Your task to perform on an android device: Open Android settings Image 0: 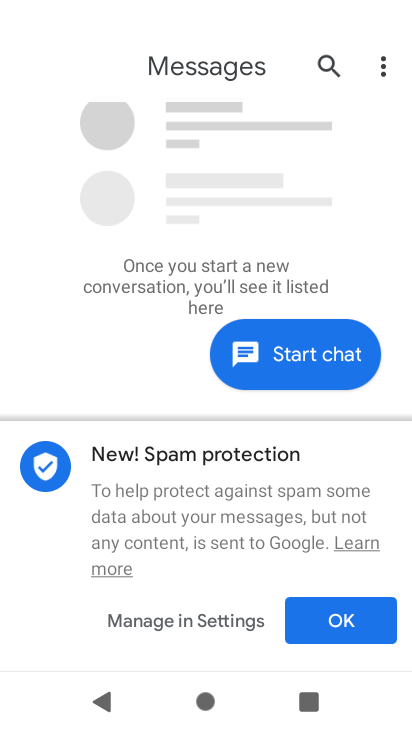
Step 0: press home button
Your task to perform on an android device: Open Android settings Image 1: 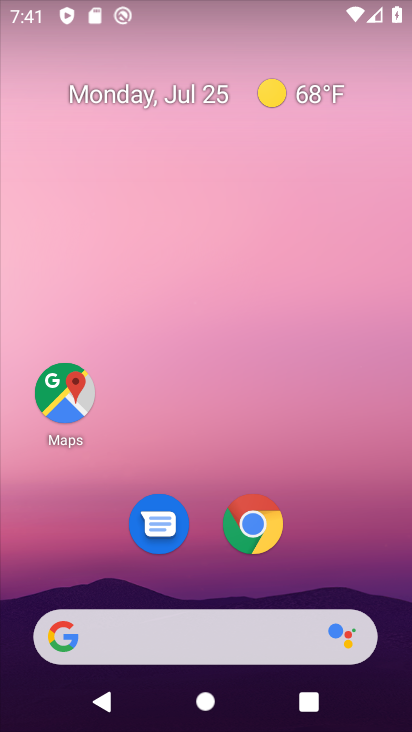
Step 1: drag from (346, 504) to (382, 140)
Your task to perform on an android device: Open Android settings Image 2: 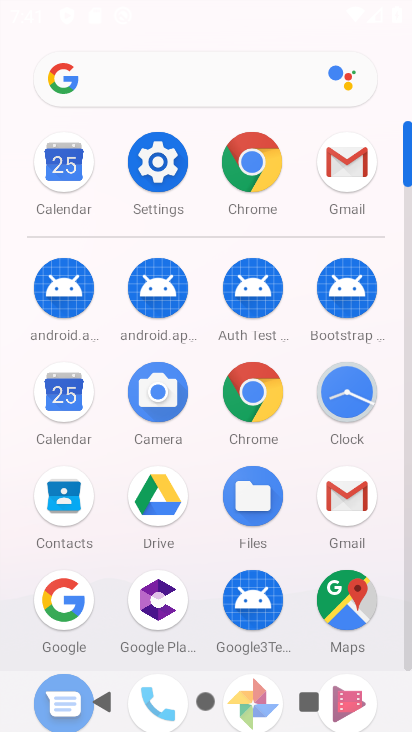
Step 2: click (176, 152)
Your task to perform on an android device: Open Android settings Image 3: 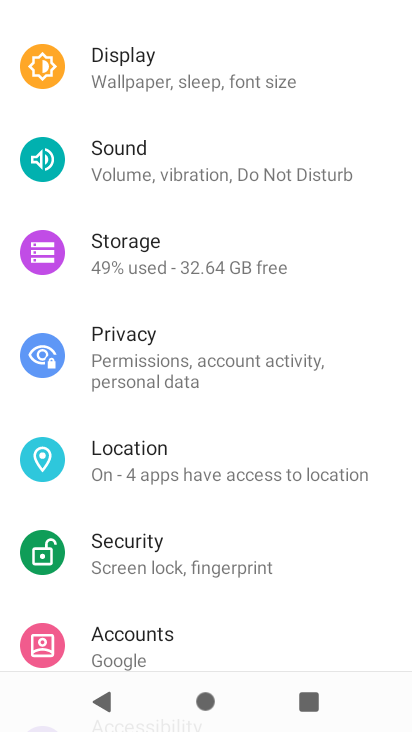
Step 3: drag from (225, 550) to (245, 100)
Your task to perform on an android device: Open Android settings Image 4: 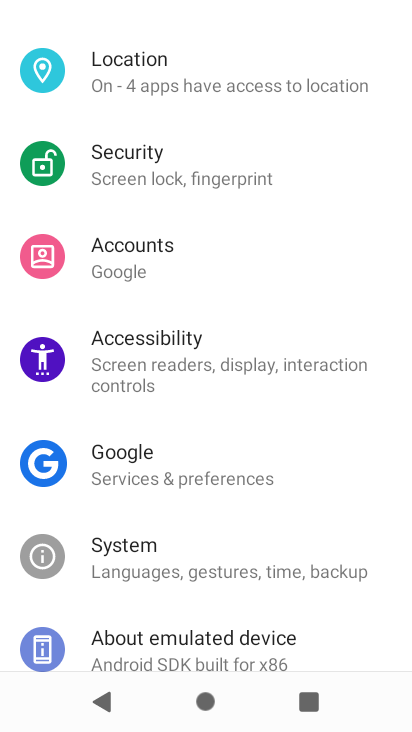
Step 4: click (199, 637)
Your task to perform on an android device: Open Android settings Image 5: 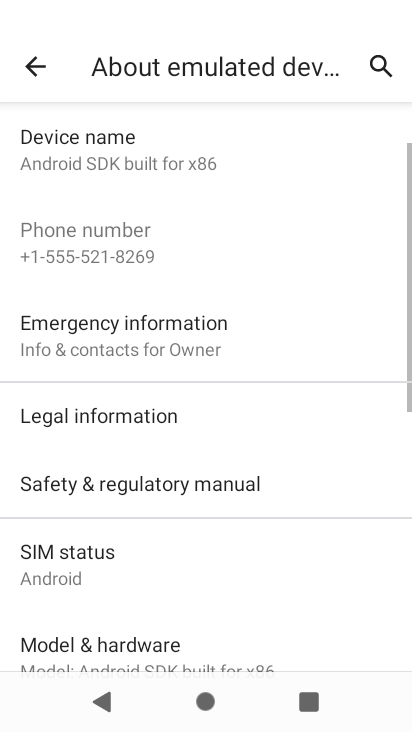
Step 5: task complete